Your task to perform on an android device: change the clock style Image 0: 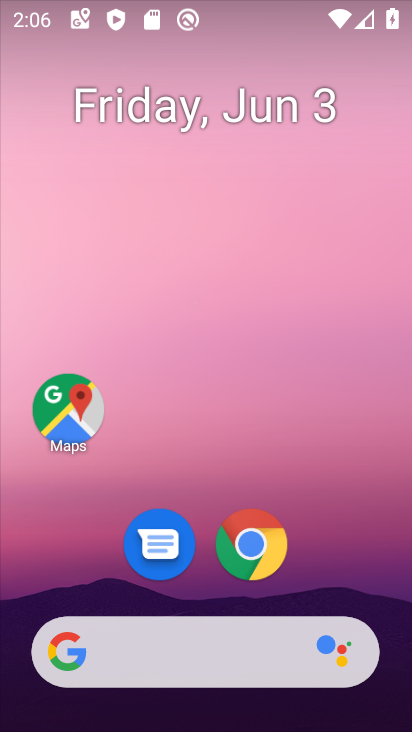
Step 0: drag from (323, 525) to (300, 126)
Your task to perform on an android device: change the clock style Image 1: 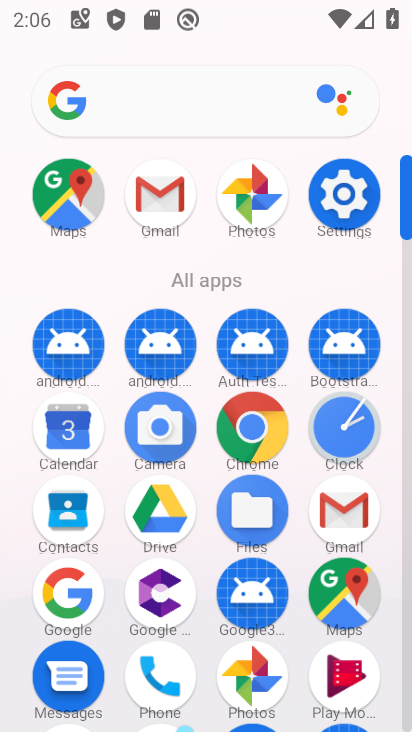
Step 1: click (332, 447)
Your task to perform on an android device: change the clock style Image 2: 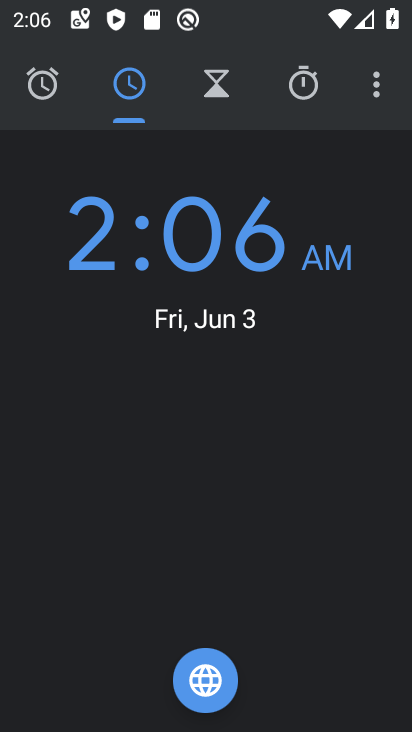
Step 2: click (390, 108)
Your task to perform on an android device: change the clock style Image 3: 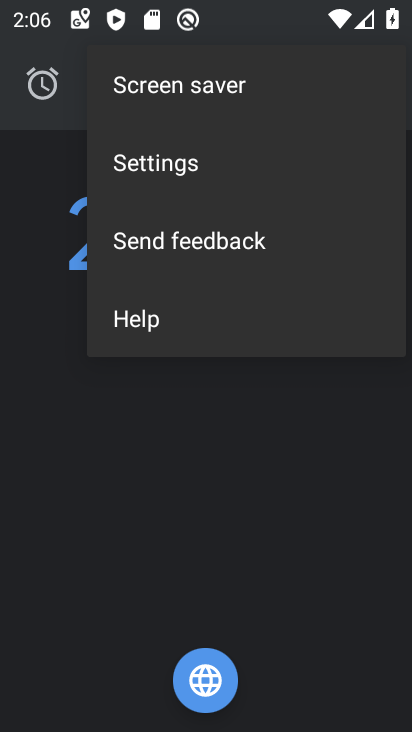
Step 3: click (235, 150)
Your task to perform on an android device: change the clock style Image 4: 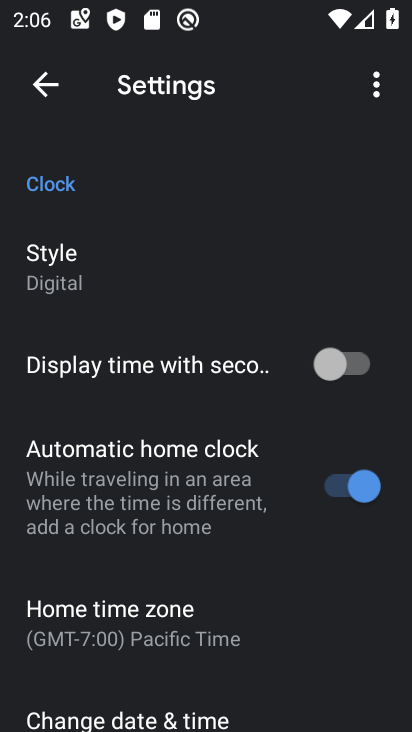
Step 4: click (250, 263)
Your task to perform on an android device: change the clock style Image 5: 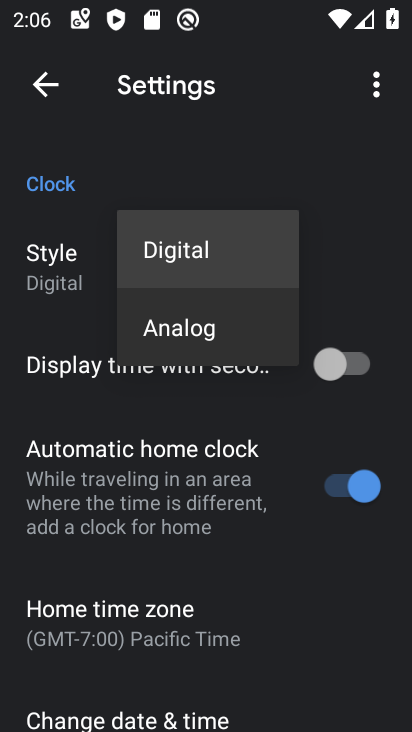
Step 5: click (204, 328)
Your task to perform on an android device: change the clock style Image 6: 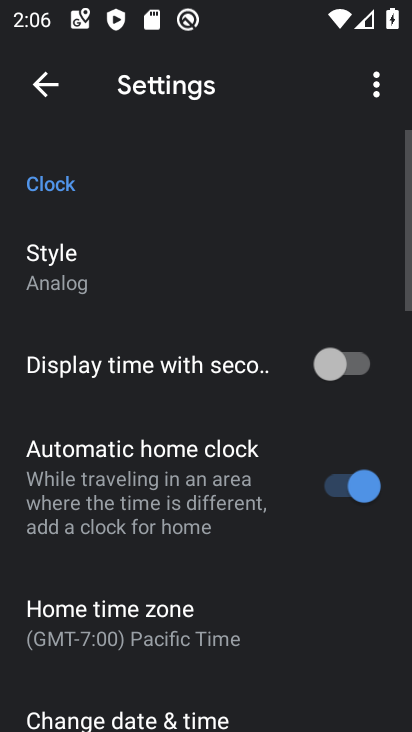
Step 6: task complete